Your task to perform on an android device: Open maps Image 0: 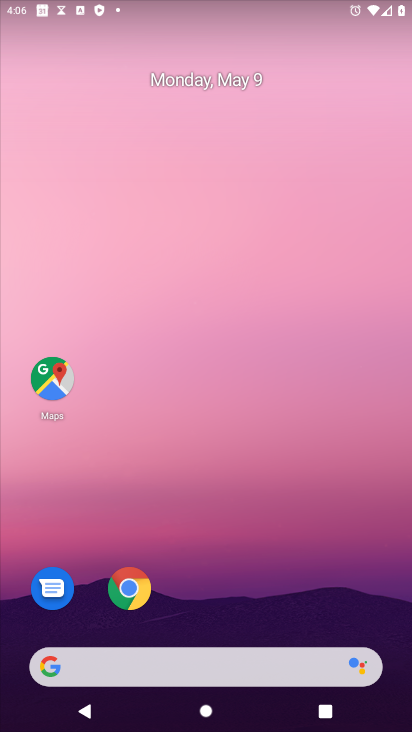
Step 0: click (55, 375)
Your task to perform on an android device: Open maps Image 1: 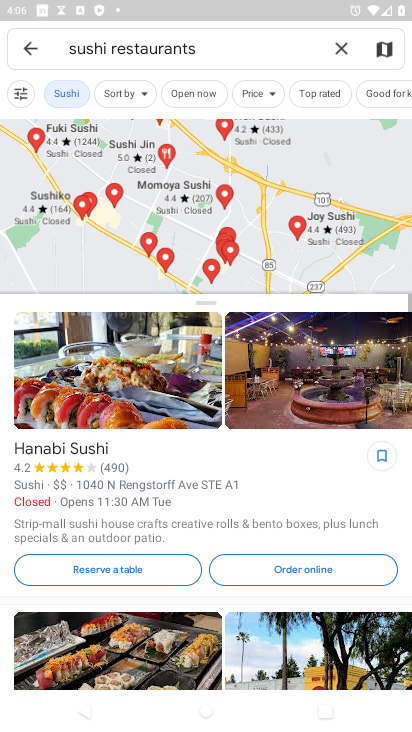
Step 1: task complete